Your task to perform on an android device: empty trash in the gmail app Image 0: 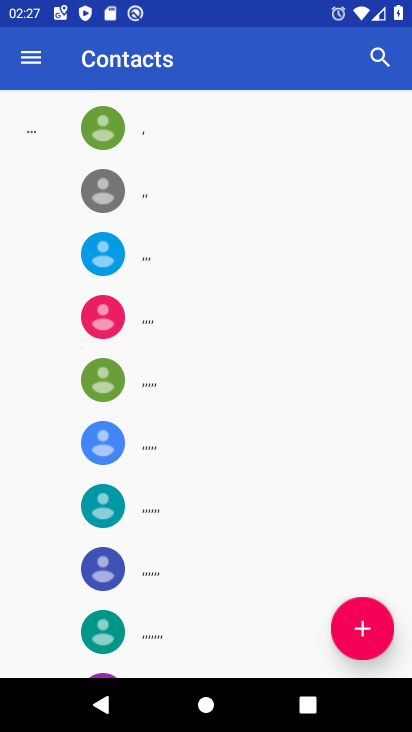
Step 0: press home button
Your task to perform on an android device: empty trash in the gmail app Image 1: 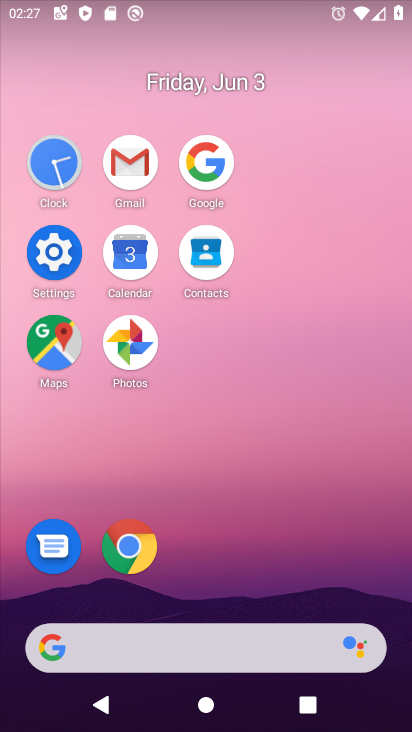
Step 1: click (138, 161)
Your task to perform on an android device: empty trash in the gmail app Image 2: 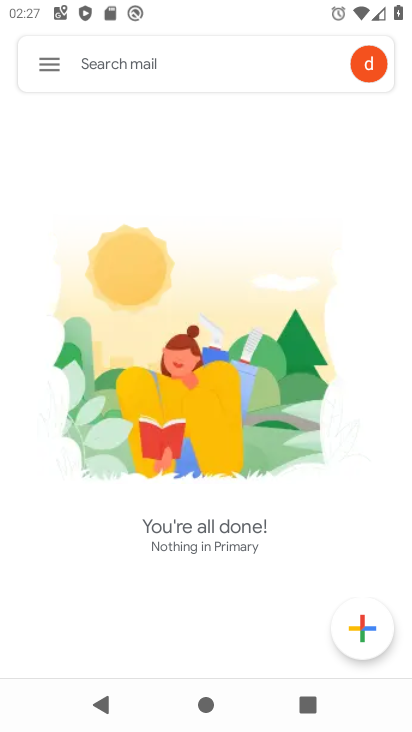
Step 2: click (44, 49)
Your task to perform on an android device: empty trash in the gmail app Image 3: 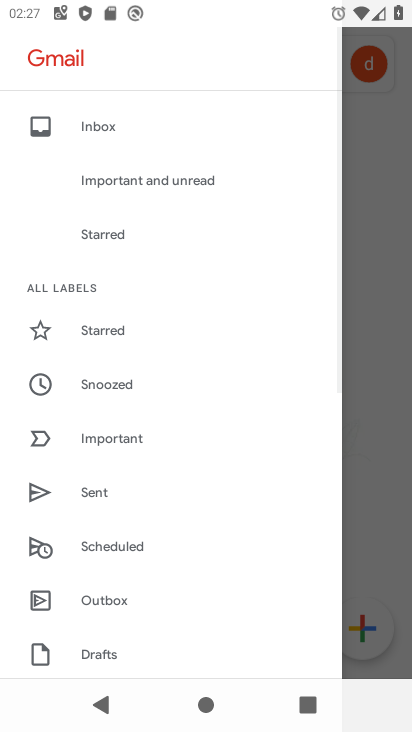
Step 3: drag from (160, 612) to (212, 140)
Your task to perform on an android device: empty trash in the gmail app Image 4: 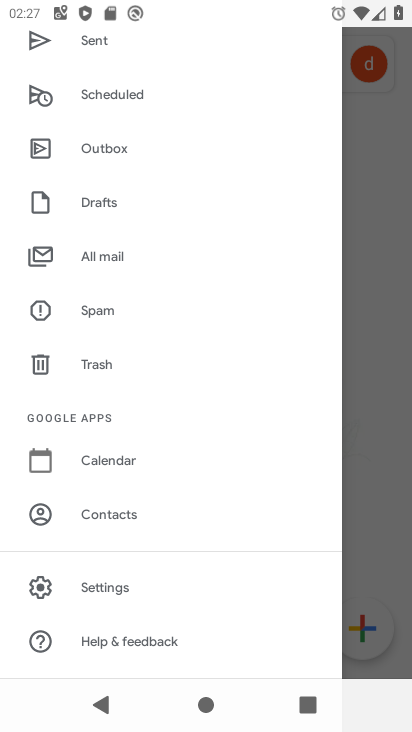
Step 4: click (135, 365)
Your task to perform on an android device: empty trash in the gmail app Image 5: 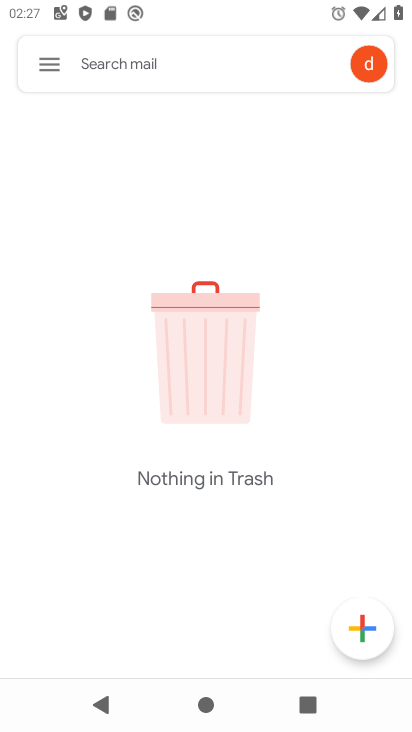
Step 5: task complete